Your task to perform on an android device: open app "Grab" (install if not already installed) Image 0: 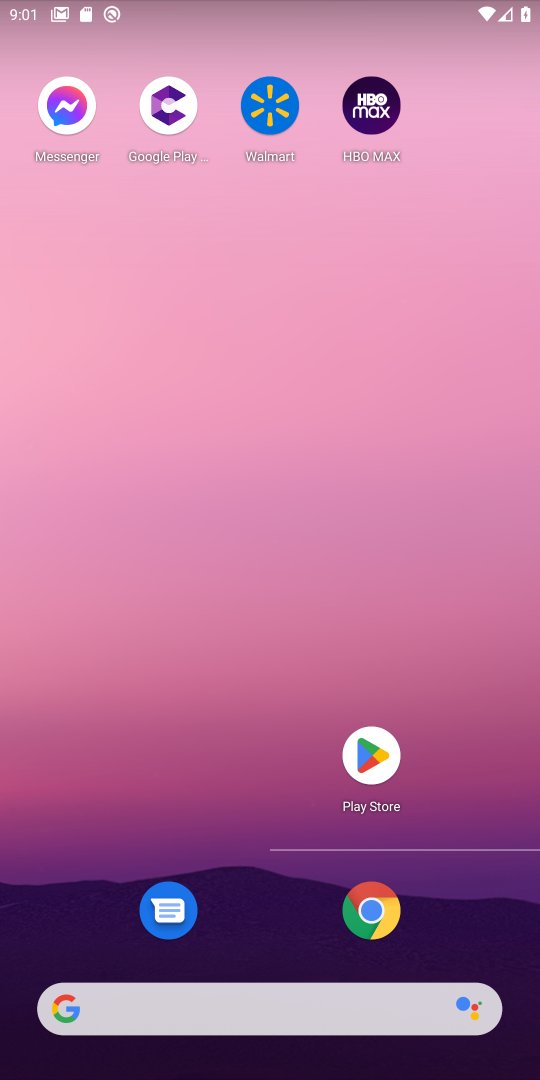
Step 0: click (104, 270)
Your task to perform on an android device: open app "Grab" (install if not already installed) Image 1: 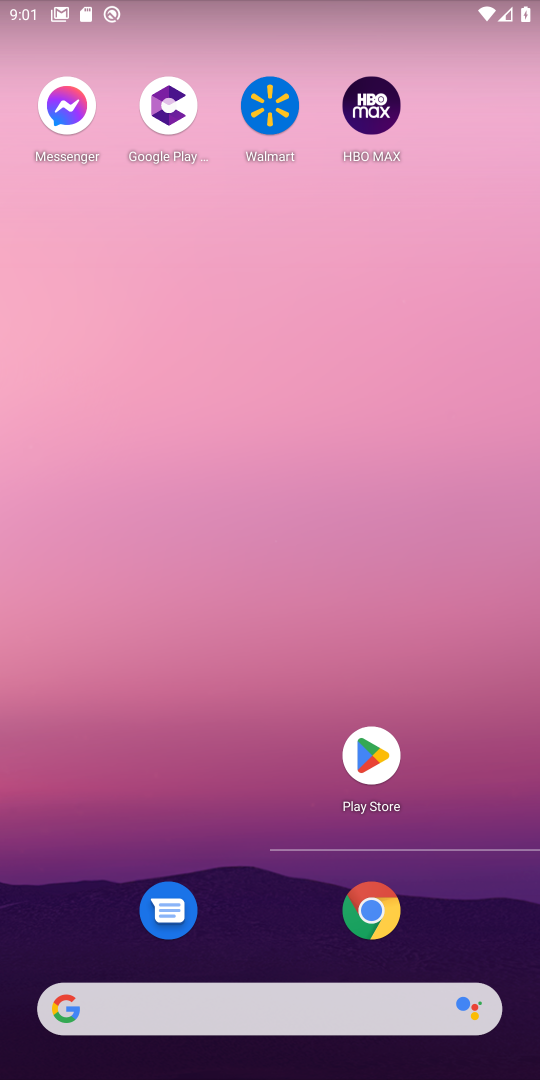
Step 1: click (225, 347)
Your task to perform on an android device: open app "Grab" (install if not already installed) Image 2: 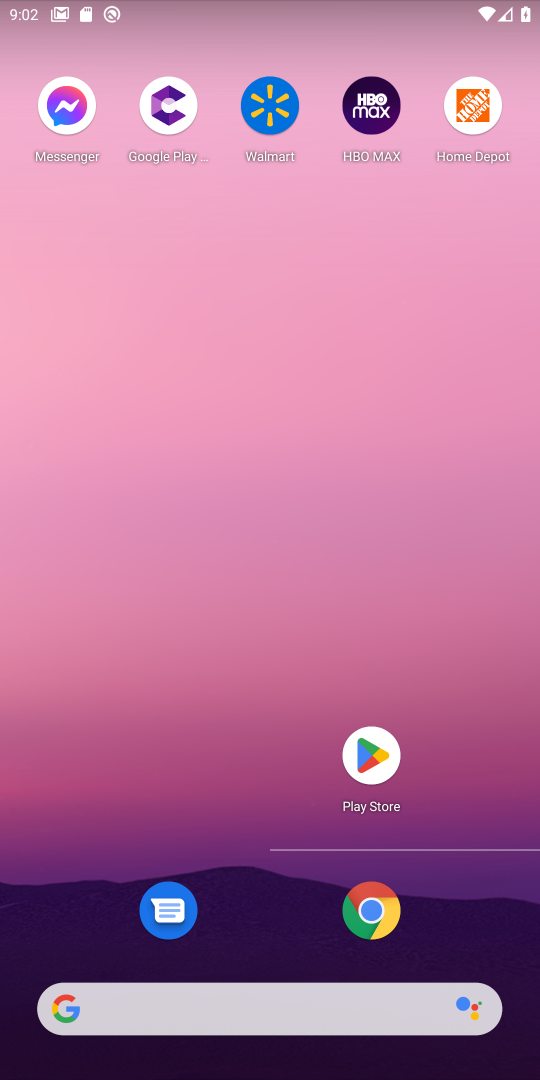
Step 2: drag from (215, 780) to (85, 92)
Your task to perform on an android device: open app "Grab" (install if not already installed) Image 3: 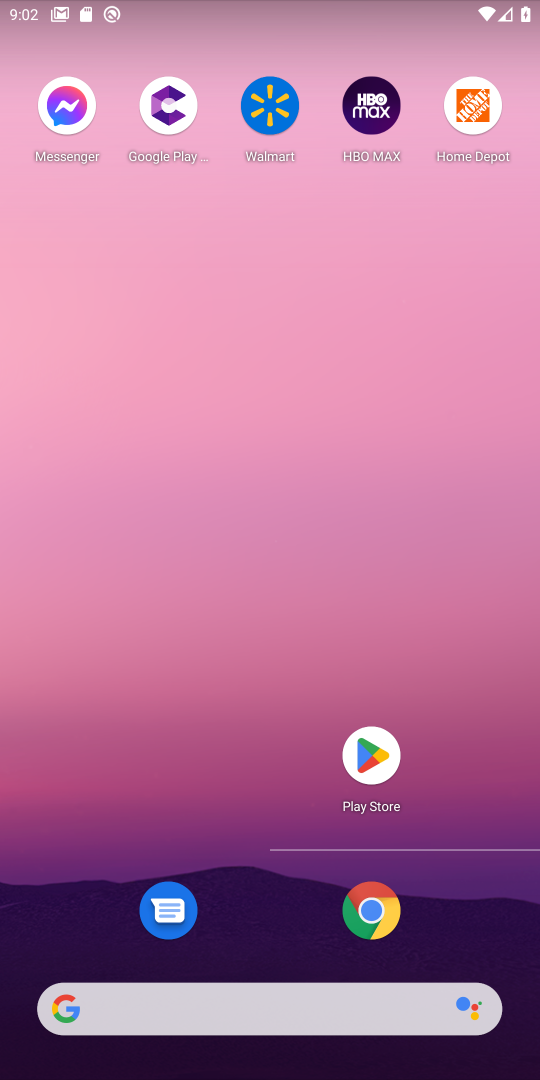
Step 3: drag from (327, 1057) to (214, 258)
Your task to perform on an android device: open app "Grab" (install if not already installed) Image 4: 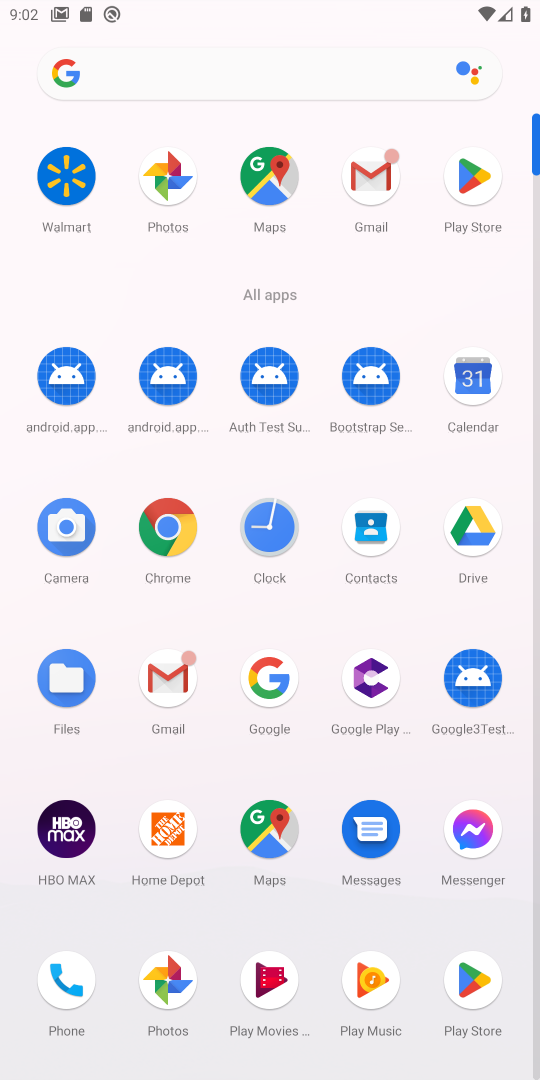
Step 4: drag from (211, 698) to (231, 72)
Your task to perform on an android device: open app "Grab" (install if not already installed) Image 5: 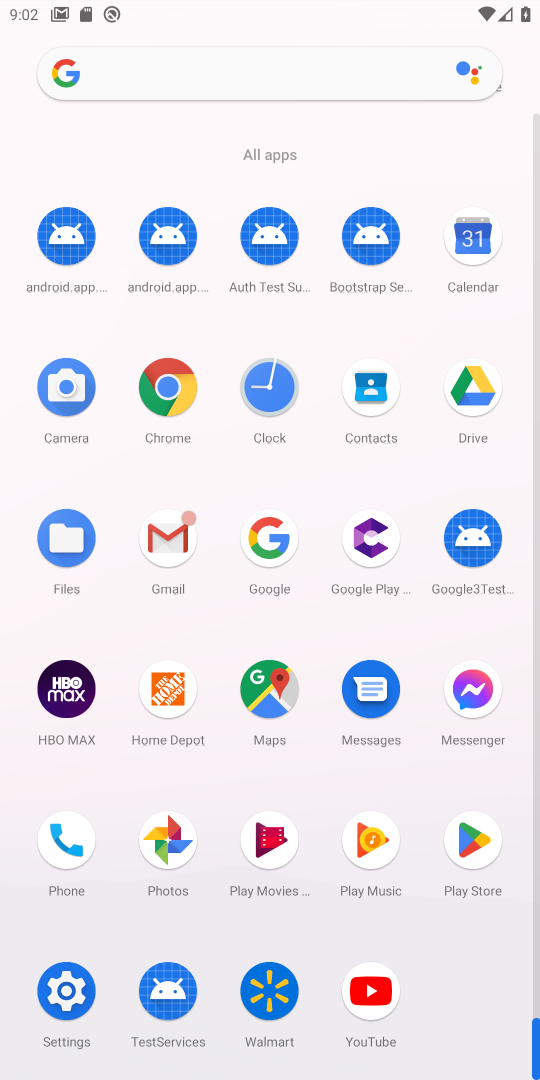
Step 5: click (367, 840)
Your task to perform on an android device: open app "Grab" (install if not already installed) Image 6: 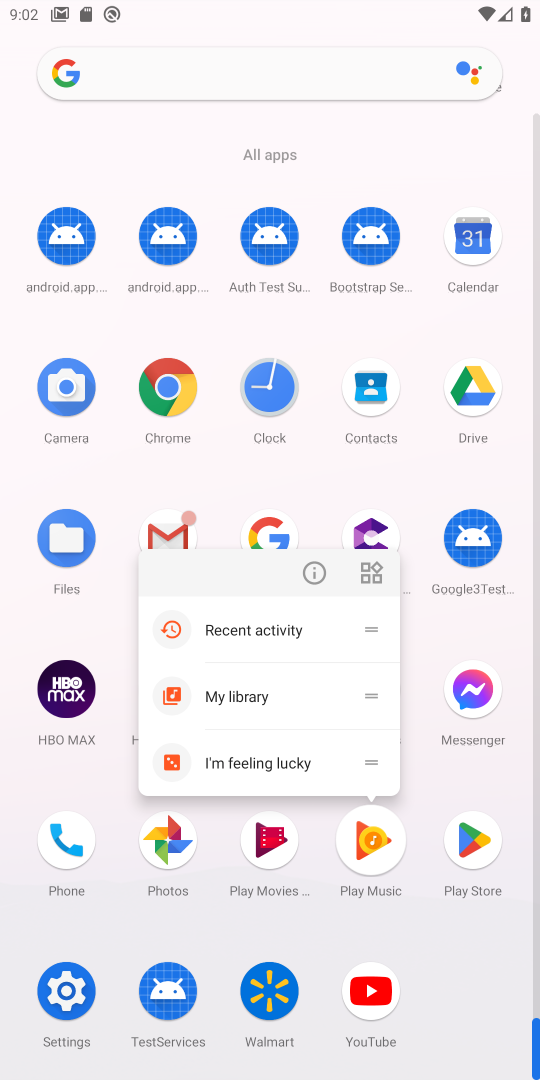
Step 6: click (466, 842)
Your task to perform on an android device: open app "Grab" (install if not already installed) Image 7: 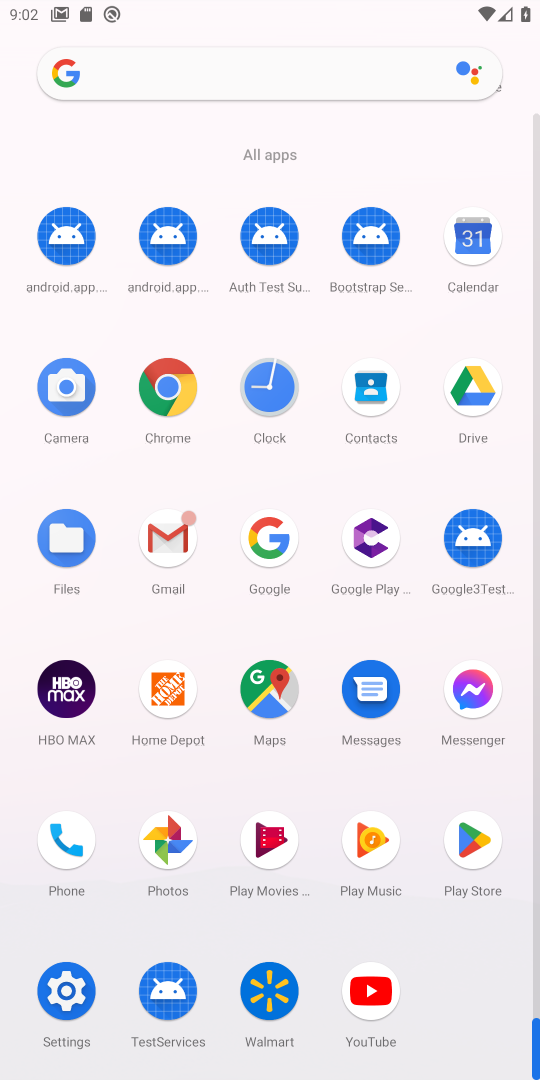
Step 7: click (469, 847)
Your task to perform on an android device: open app "Grab" (install if not already installed) Image 8: 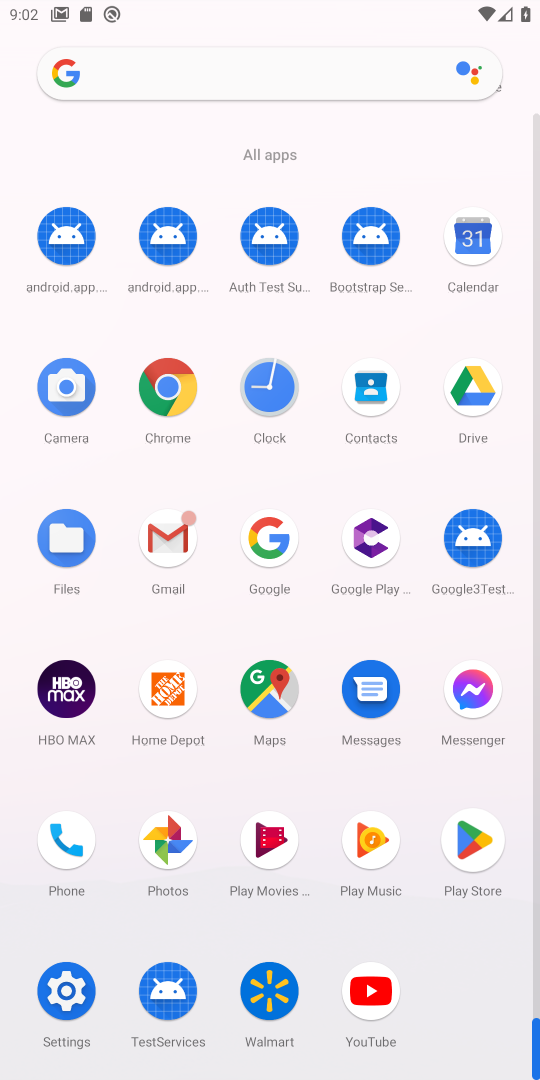
Step 8: click (471, 846)
Your task to perform on an android device: open app "Grab" (install if not already installed) Image 9: 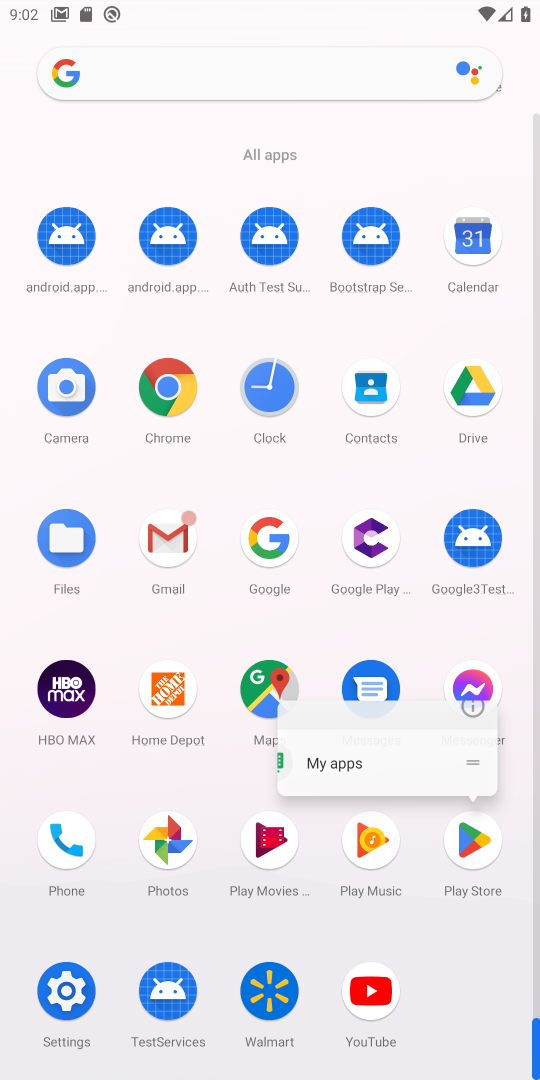
Step 9: click (468, 850)
Your task to perform on an android device: open app "Grab" (install if not already installed) Image 10: 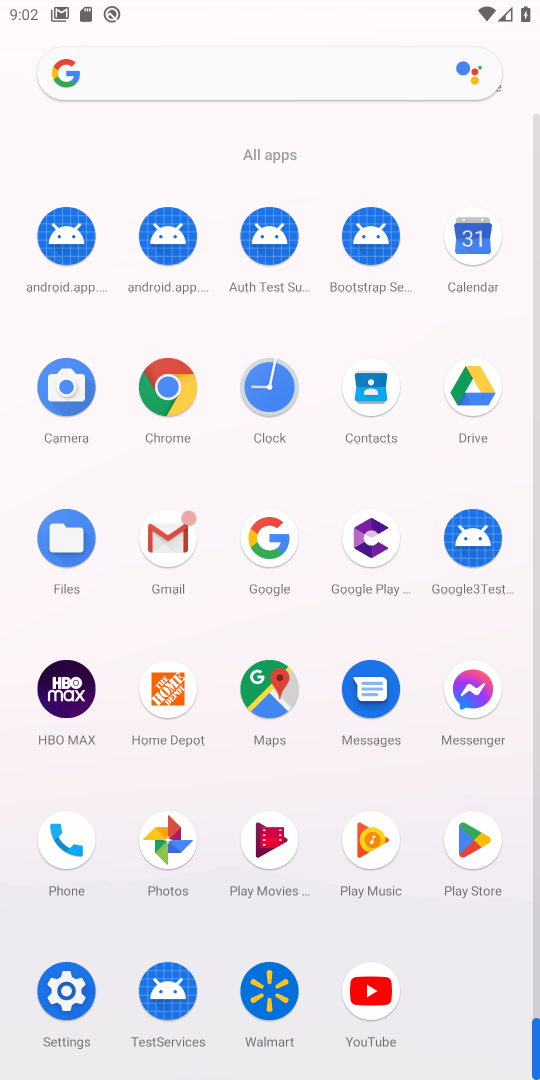
Step 10: click (470, 848)
Your task to perform on an android device: open app "Grab" (install if not already installed) Image 11: 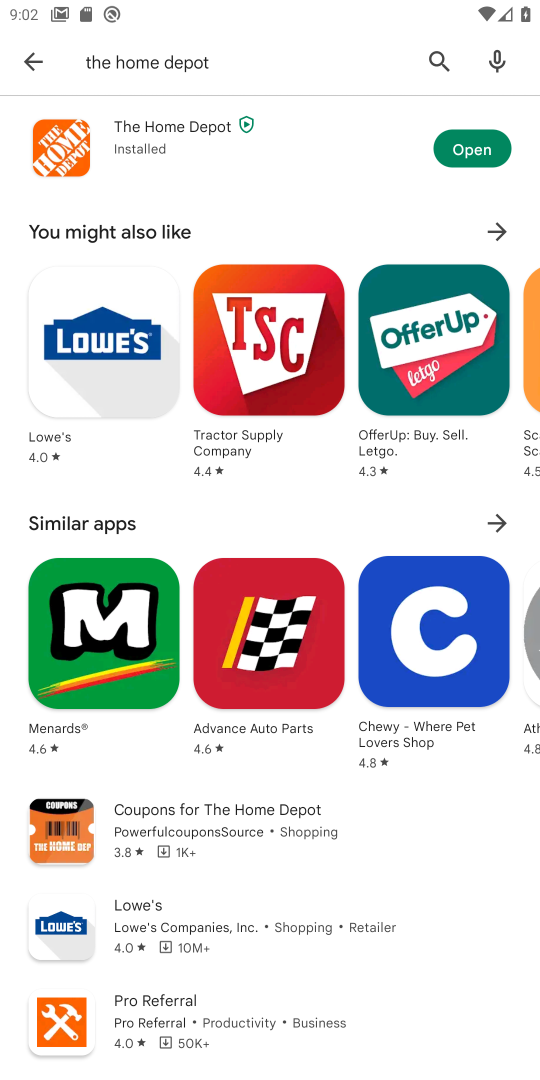
Step 11: click (475, 856)
Your task to perform on an android device: open app "Grab" (install if not already installed) Image 12: 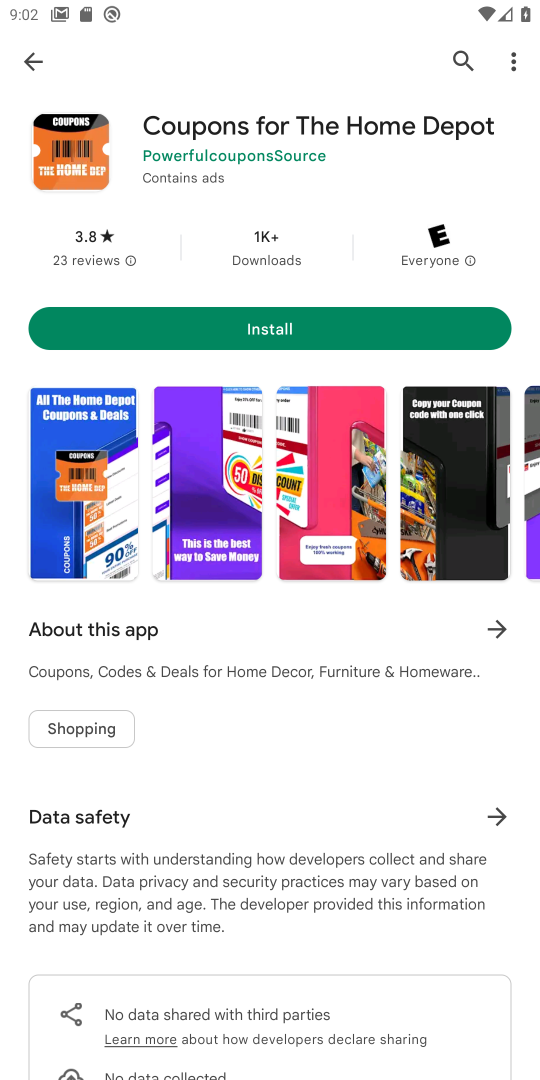
Step 12: click (27, 57)
Your task to perform on an android device: open app "Grab" (install if not already installed) Image 13: 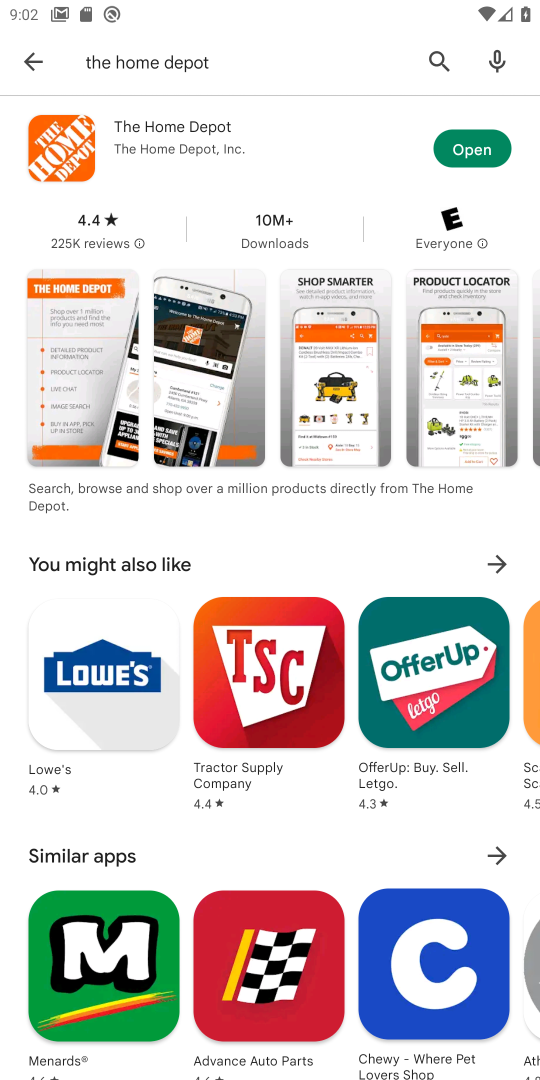
Step 13: click (20, 60)
Your task to perform on an android device: open app "Grab" (install if not already installed) Image 14: 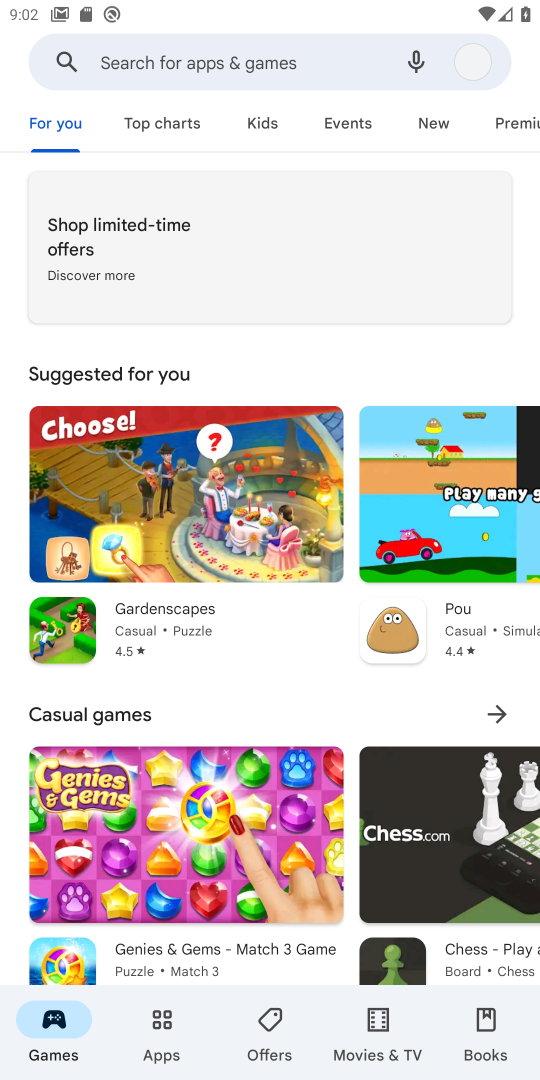
Step 14: click (100, 67)
Your task to perform on an android device: open app "Grab" (install if not already installed) Image 15: 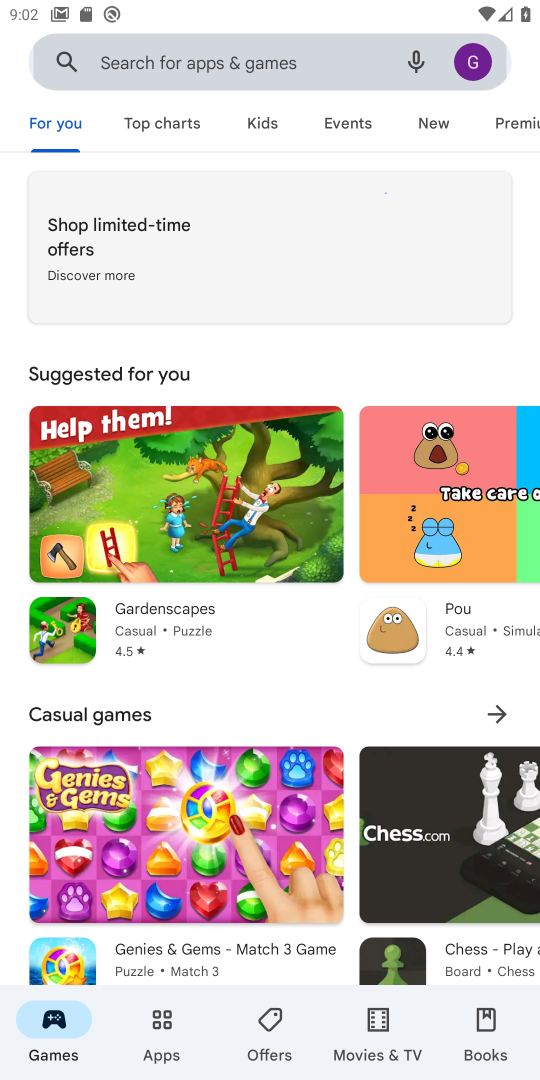
Step 15: click (105, 56)
Your task to perform on an android device: open app "Grab" (install if not already installed) Image 16: 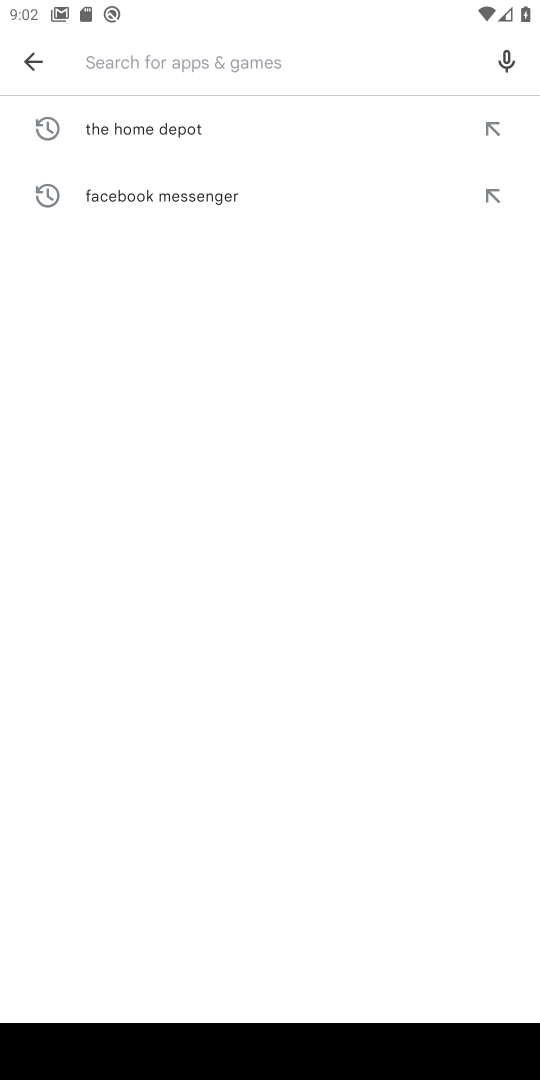
Step 16: type "Grab"
Your task to perform on an android device: open app "Grab" (install if not already installed) Image 17: 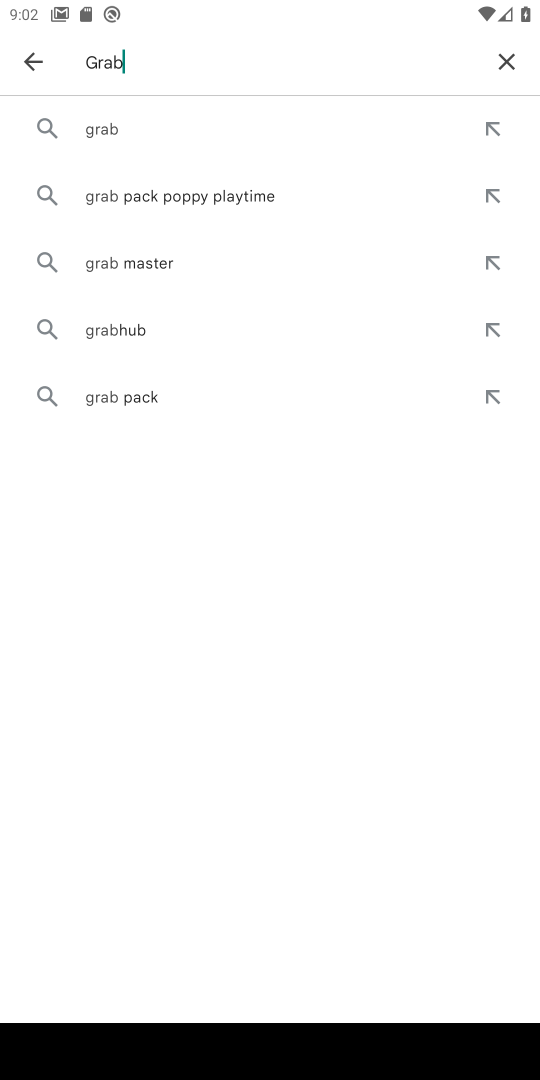
Step 17: click (491, 121)
Your task to perform on an android device: open app "Grab" (install if not already installed) Image 18: 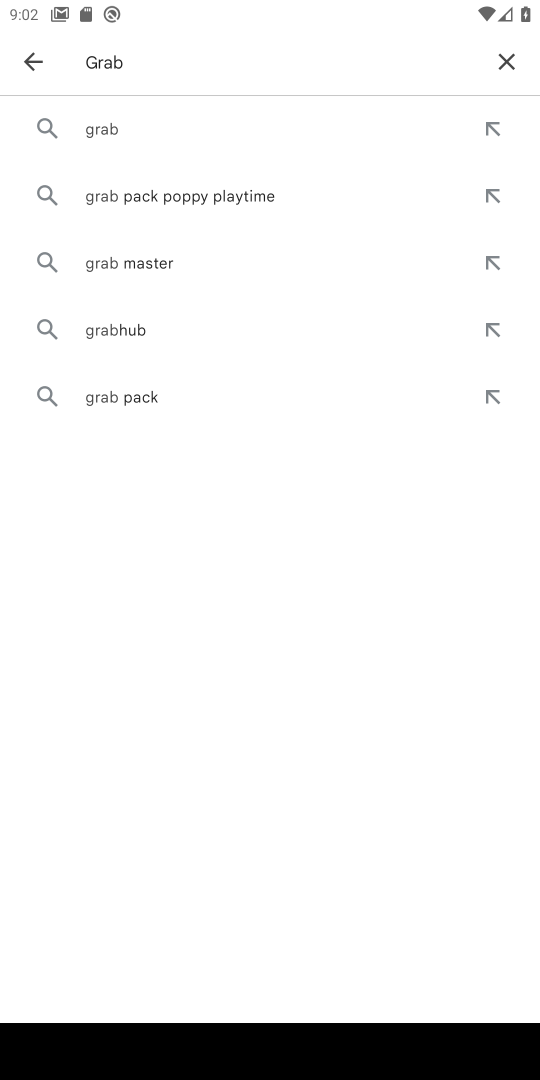
Step 18: click (491, 121)
Your task to perform on an android device: open app "Grab" (install if not already installed) Image 19: 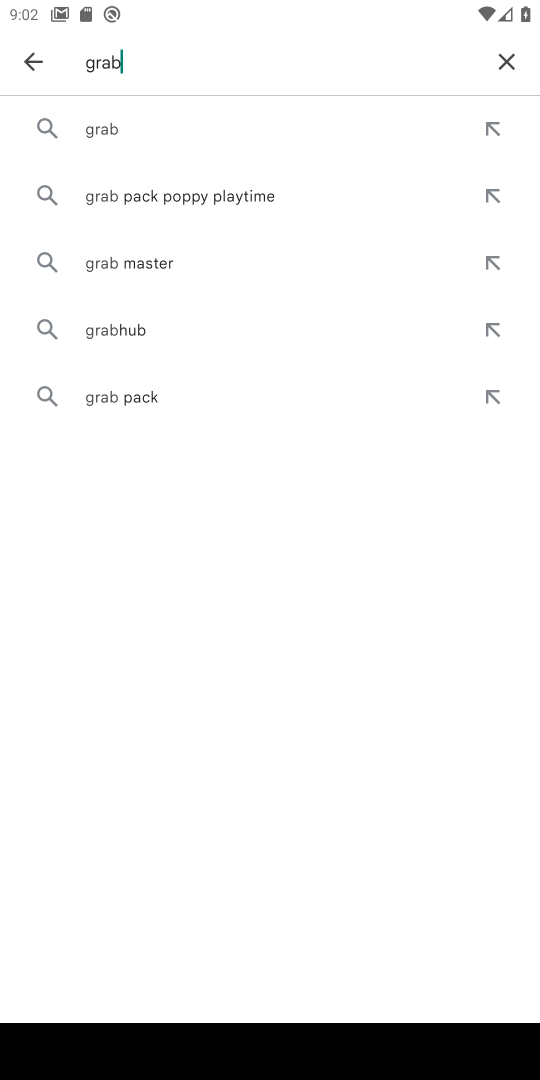
Step 19: click (94, 123)
Your task to perform on an android device: open app "Grab" (install if not already installed) Image 20: 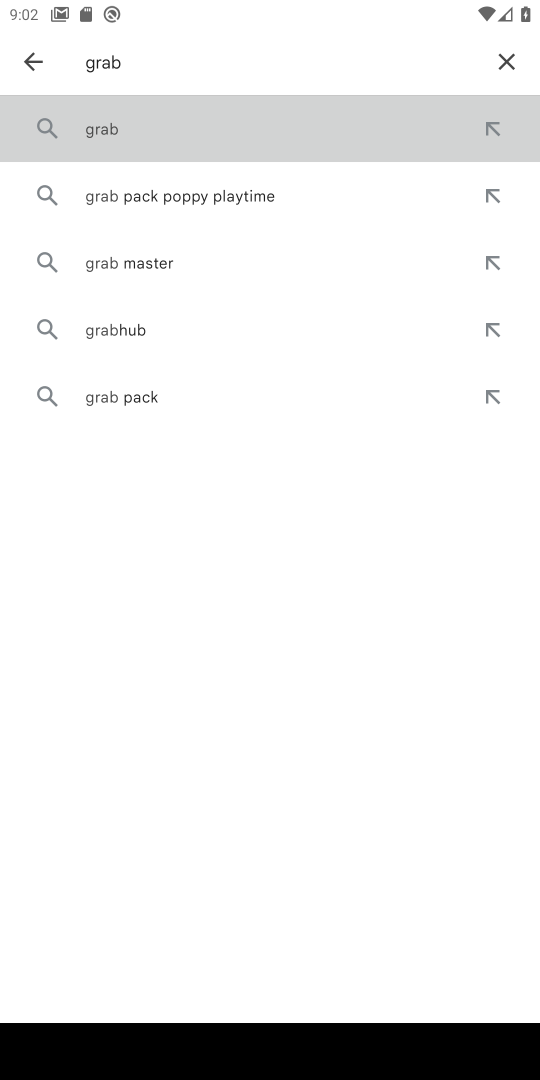
Step 20: click (97, 122)
Your task to perform on an android device: open app "Grab" (install if not already installed) Image 21: 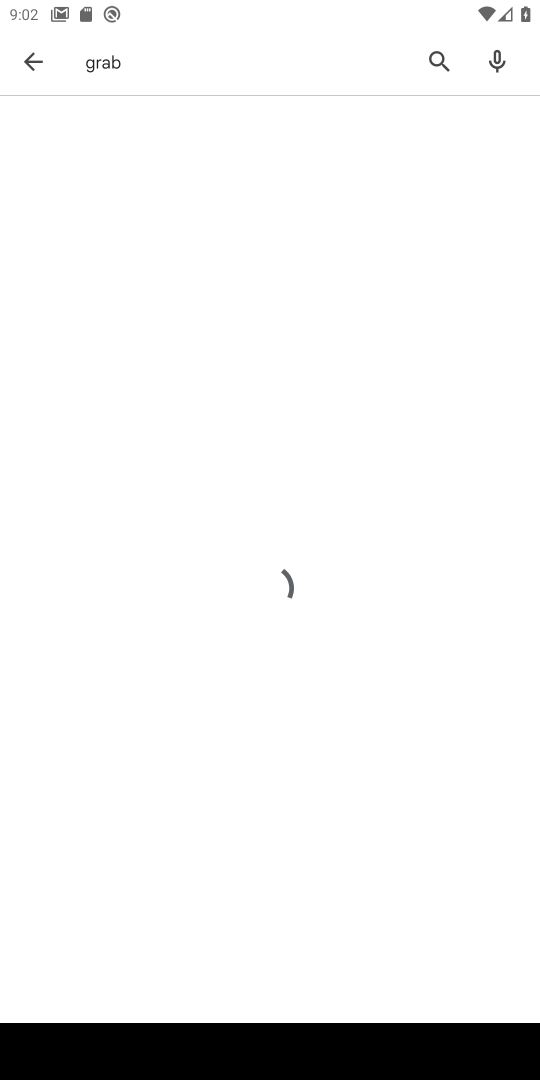
Step 21: click (97, 122)
Your task to perform on an android device: open app "Grab" (install if not already installed) Image 22: 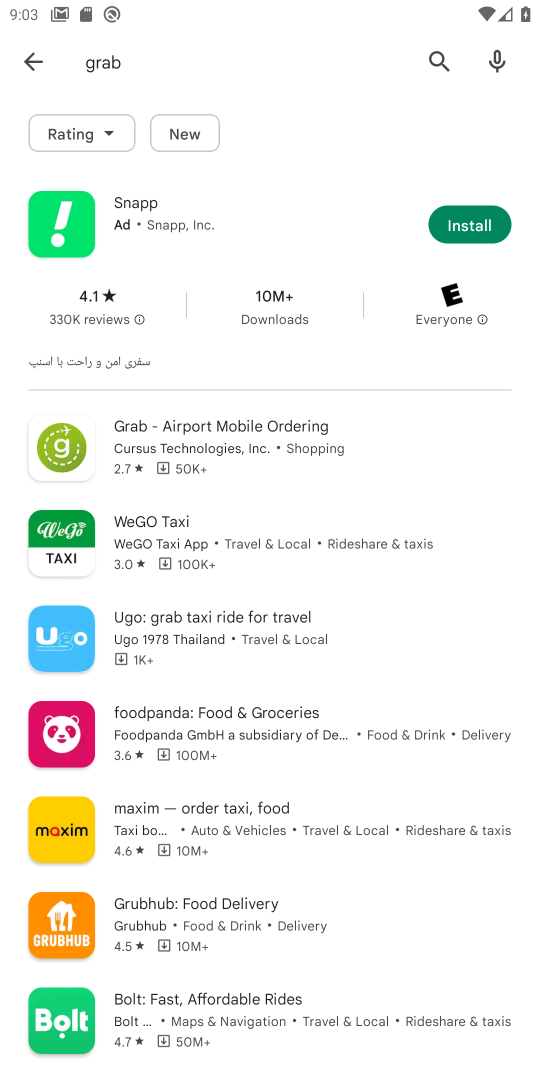
Step 22: task complete